Your task to perform on an android device: Turn off the flashlight Image 0: 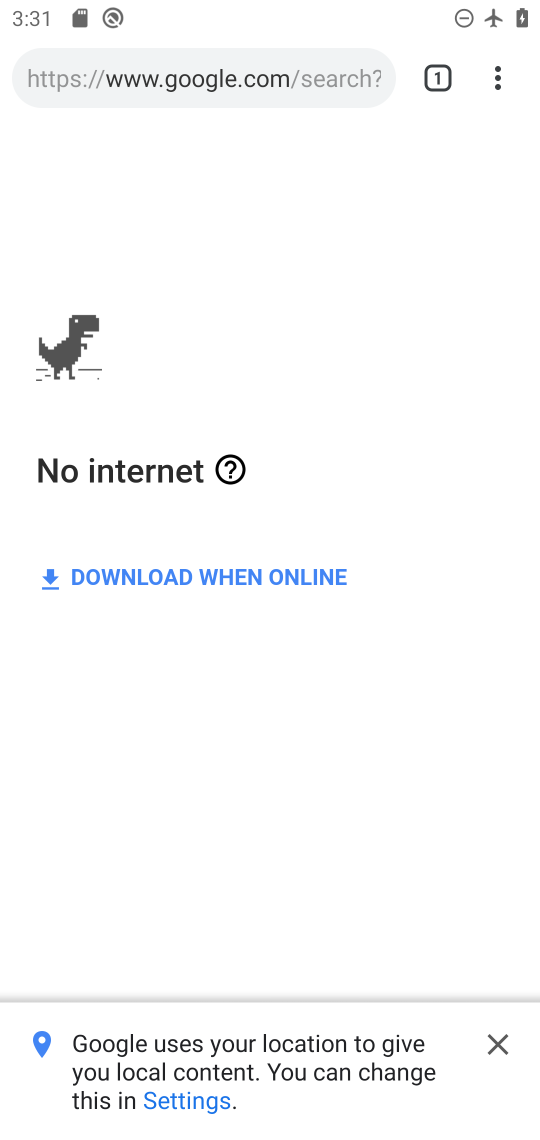
Step 0: press back button
Your task to perform on an android device: Turn off the flashlight Image 1: 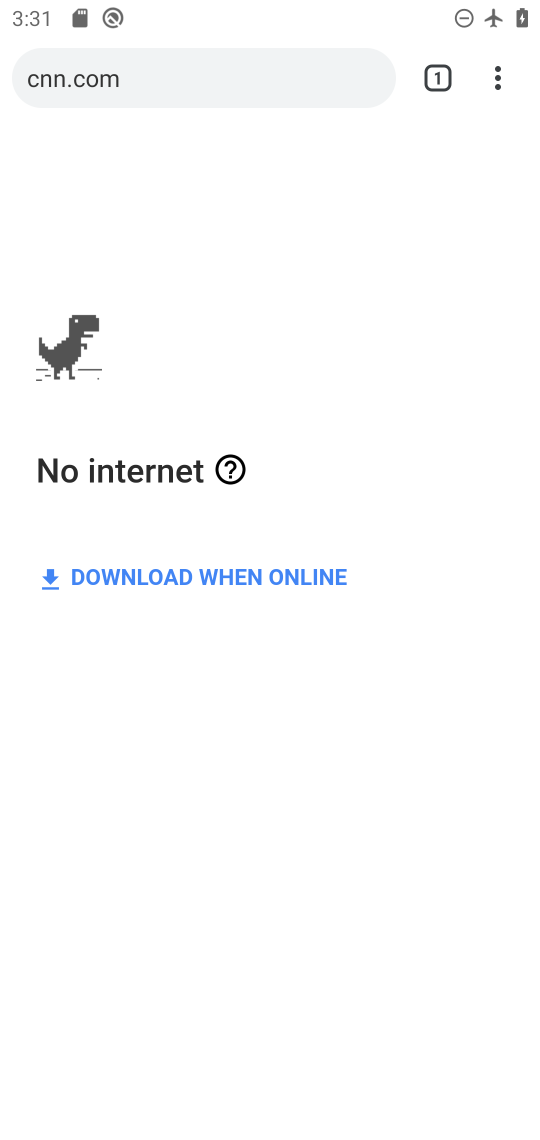
Step 1: press home button
Your task to perform on an android device: Turn off the flashlight Image 2: 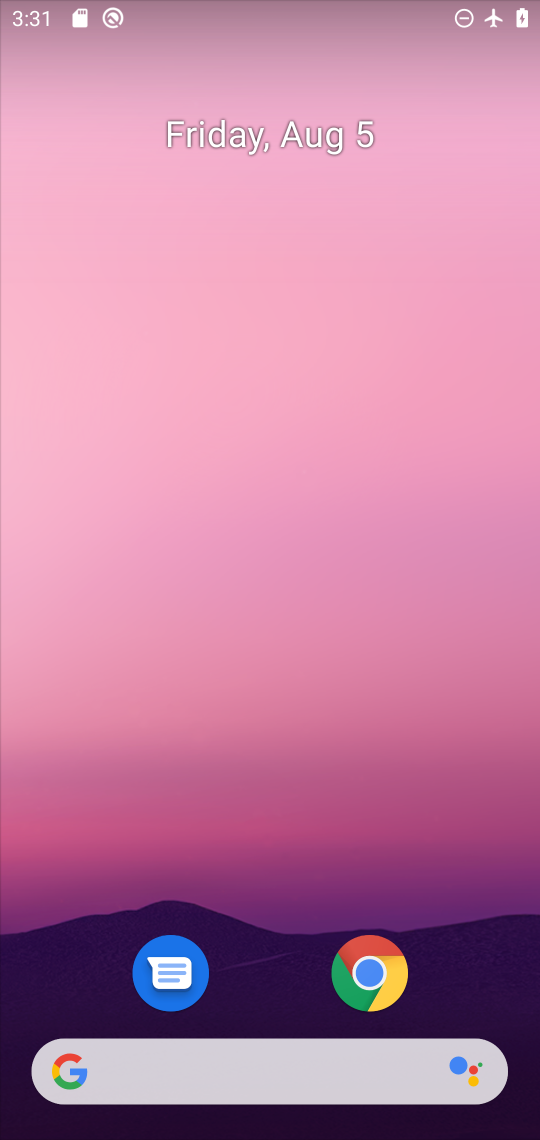
Step 2: drag from (221, 915) to (219, 8)
Your task to perform on an android device: Turn off the flashlight Image 3: 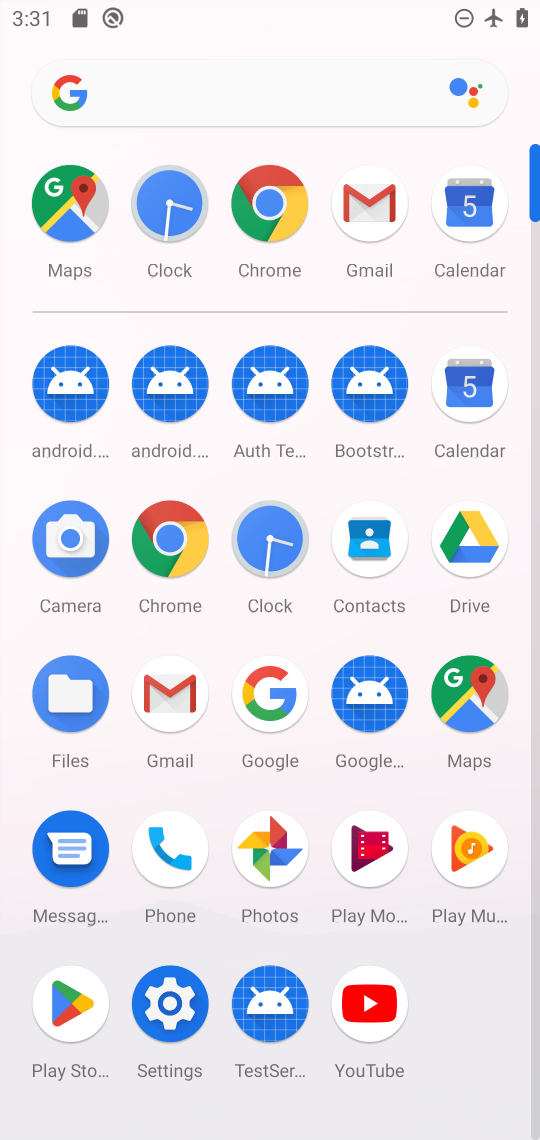
Step 3: click (182, 1023)
Your task to perform on an android device: Turn off the flashlight Image 4: 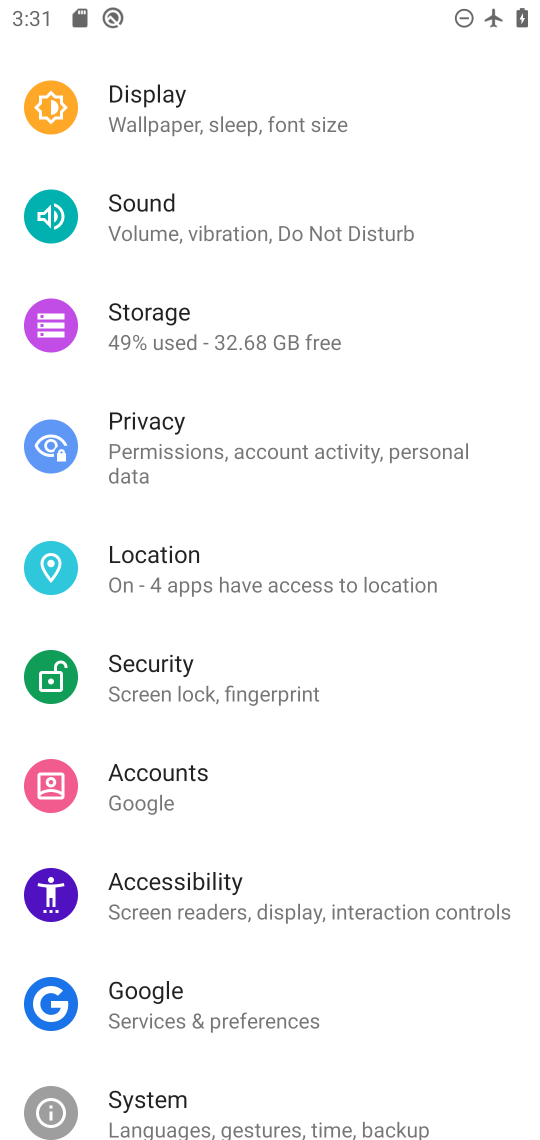
Step 4: drag from (181, 1022) to (173, 290)
Your task to perform on an android device: Turn off the flashlight Image 5: 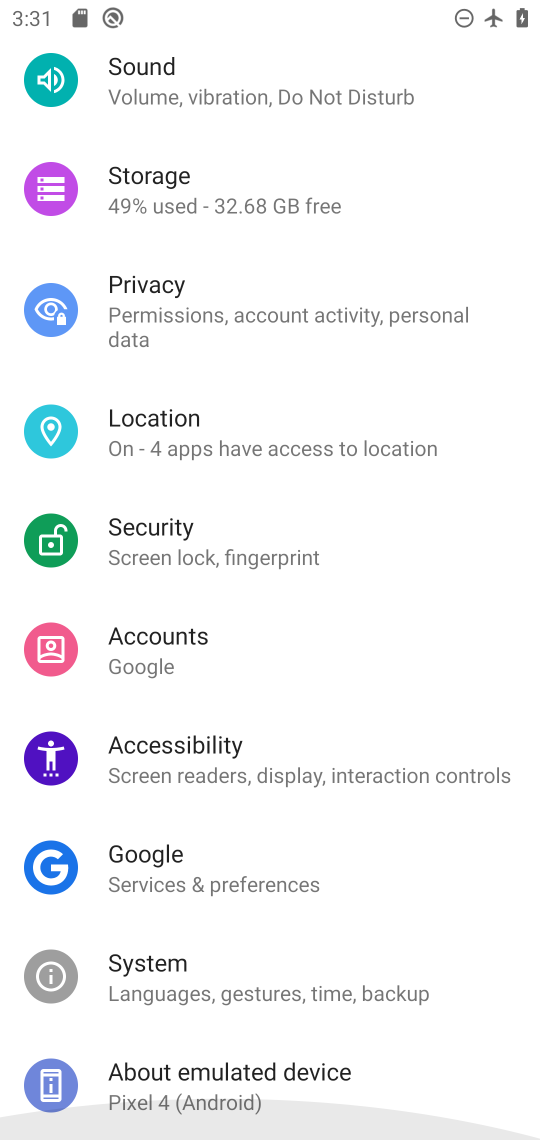
Step 5: drag from (173, 290) to (166, 1064)
Your task to perform on an android device: Turn off the flashlight Image 6: 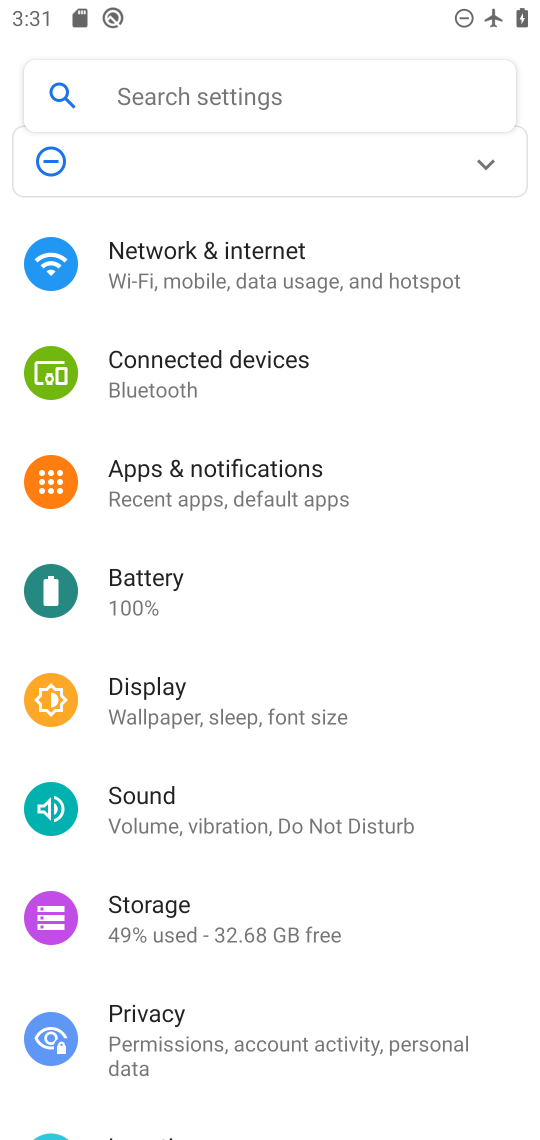
Step 6: click (235, 711)
Your task to perform on an android device: Turn off the flashlight Image 7: 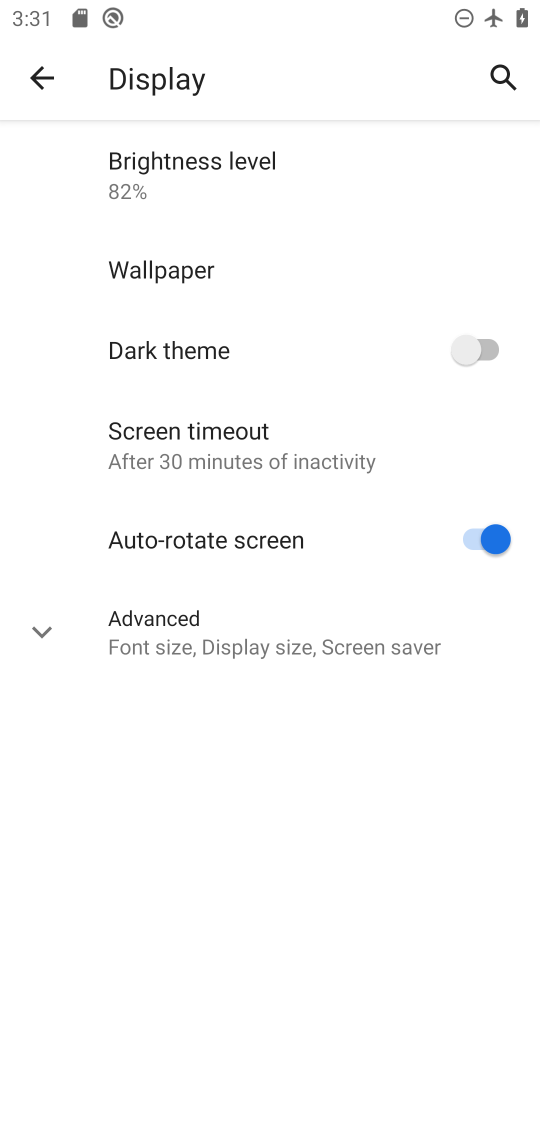
Step 7: task complete